Your task to perform on an android device: change your default location settings in chrome Image 0: 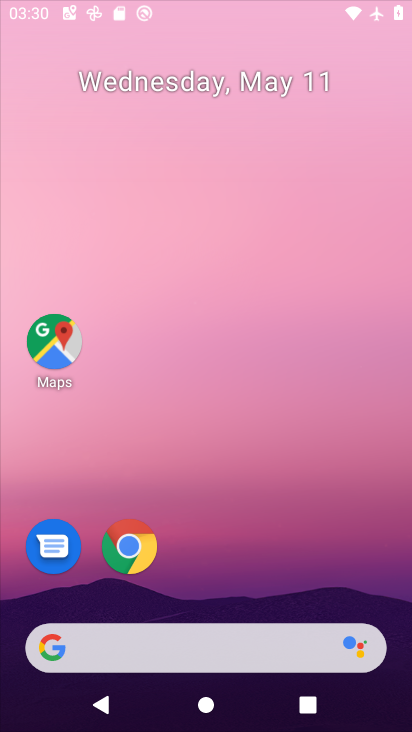
Step 0: click (237, 167)
Your task to perform on an android device: change your default location settings in chrome Image 1: 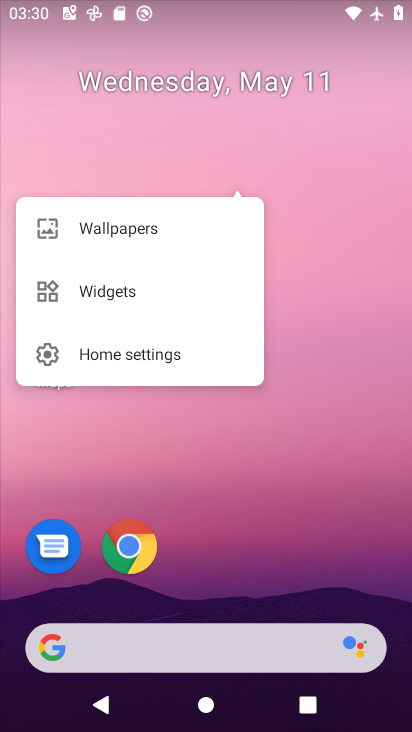
Step 1: click (368, 293)
Your task to perform on an android device: change your default location settings in chrome Image 2: 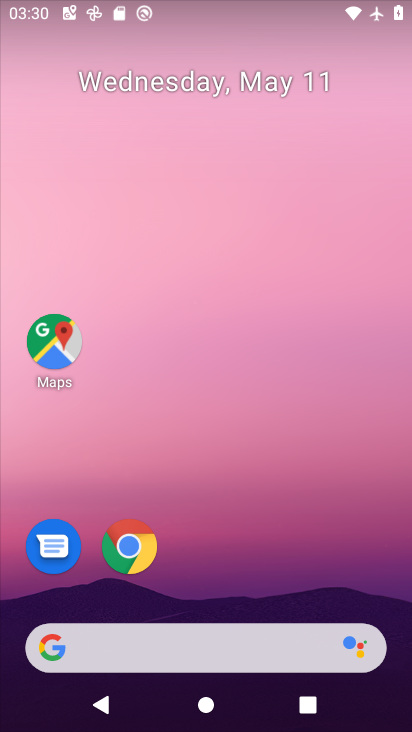
Step 2: drag from (181, 603) to (215, 144)
Your task to perform on an android device: change your default location settings in chrome Image 3: 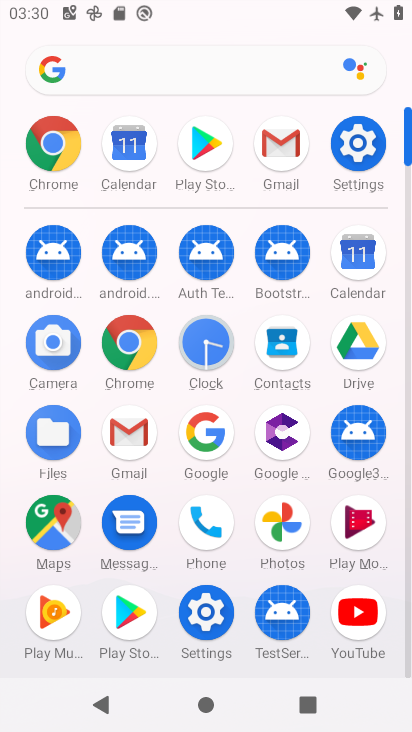
Step 3: click (127, 335)
Your task to perform on an android device: change your default location settings in chrome Image 4: 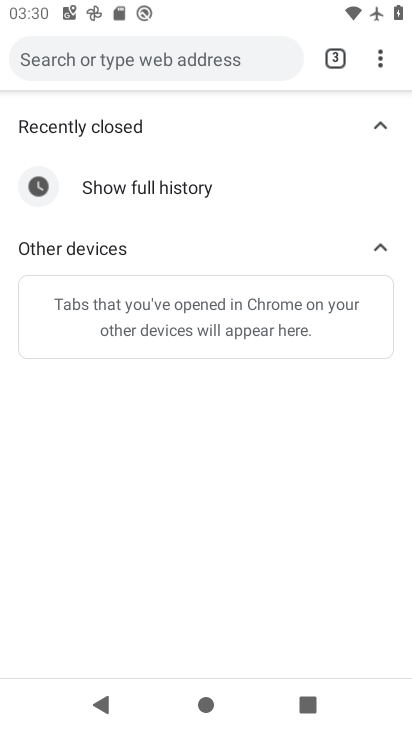
Step 4: click (382, 55)
Your task to perform on an android device: change your default location settings in chrome Image 5: 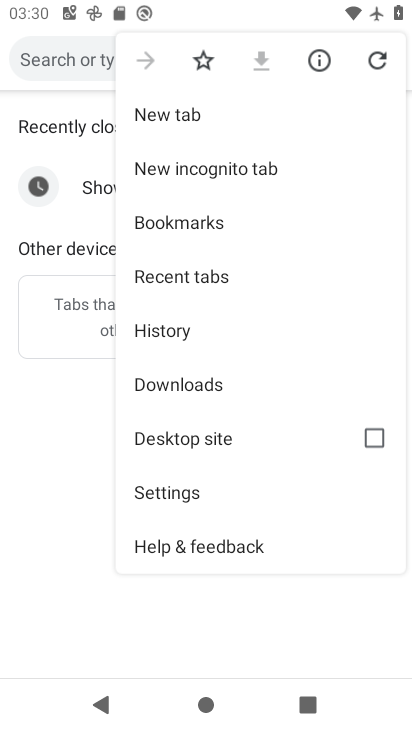
Step 5: click (186, 490)
Your task to perform on an android device: change your default location settings in chrome Image 6: 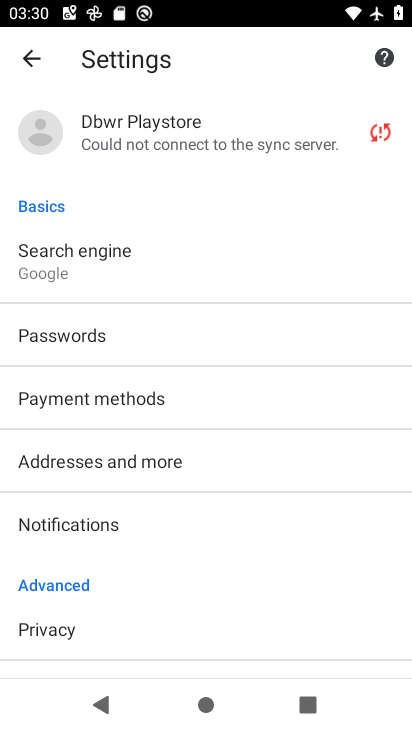
Step 6: drag from (185, 528) to (252, 209)
Your task to perform on an android device: change your default location settings in chrome Image 7: 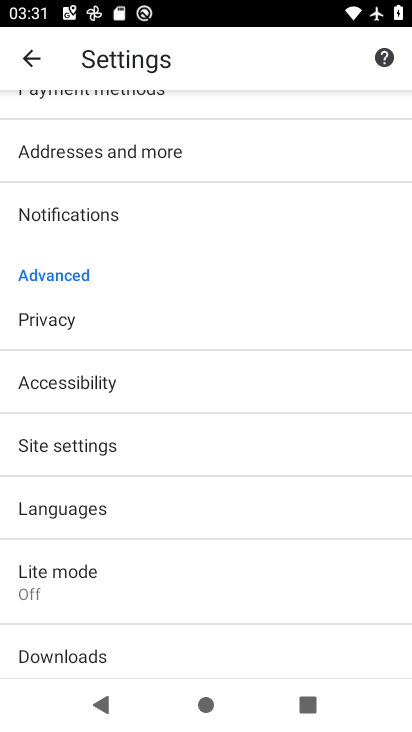
Step 7: drag from (186, 638) to (274, 229)
Your task to perform on an android device: change your default location settings in chrome Image 8: 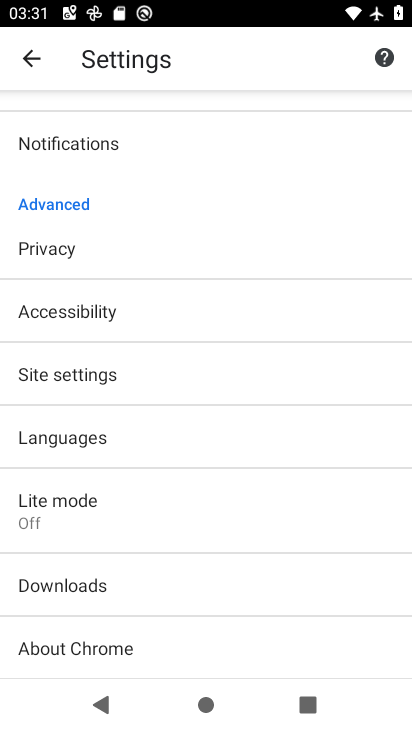
Step 8: click (141, 380)
Your task to perform on an android device: change your default location settings in chrome Image 9: 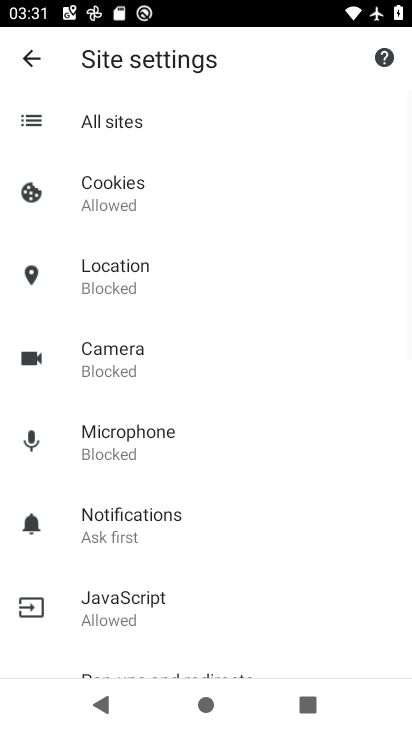
Step 9: click (176, 269)
Your task to perform on an android device: change your default location settings in chrome Image 10: 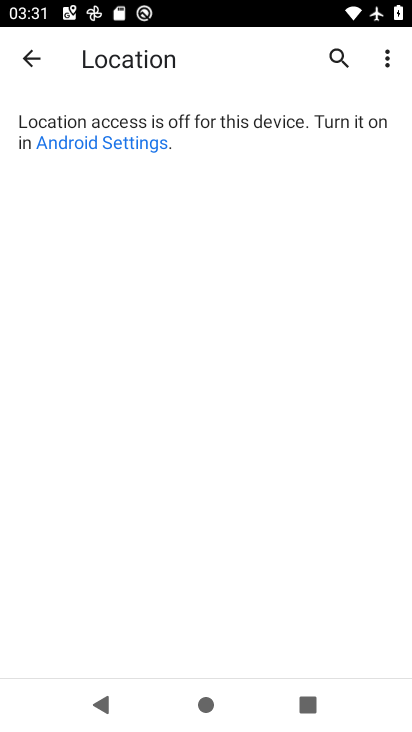
Step 10: click (222, 198)
Your task to perform on an android device: change your default location settings in chrome Image 11: 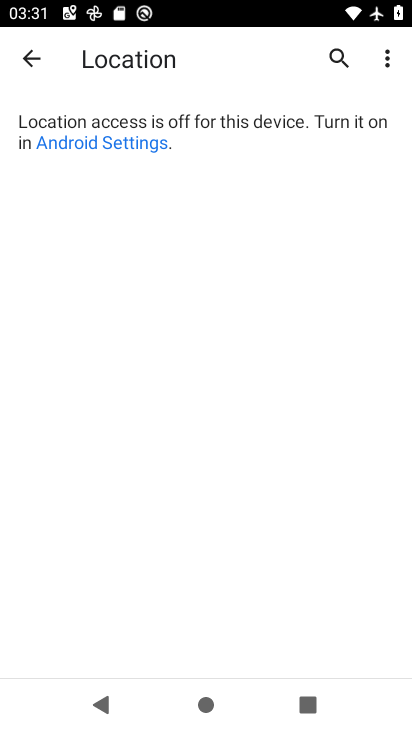
Step 11: drag from (232, 211) to (239, 443)
Your task to perform on an android device: change your default location settings in chrome Image 12: 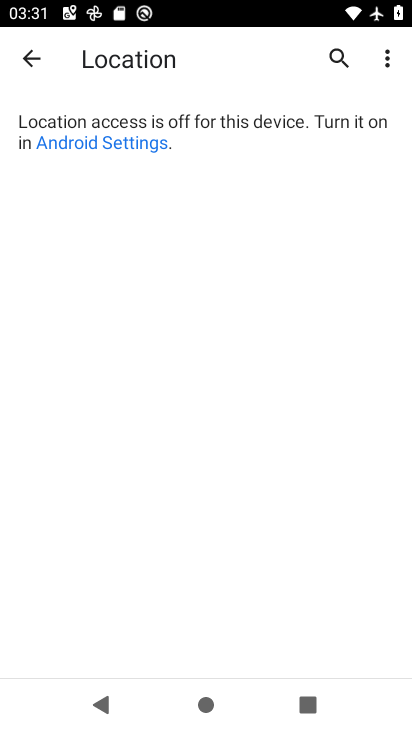
Step 12: click (239, 443)
Your task to perform on an android device: change your default location settings in chrome Image 13: 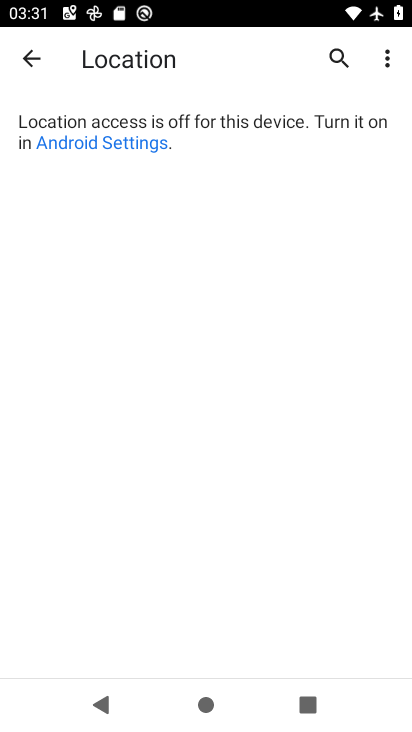
Step 13: click (235, 405)
Your task to perform on an android device: change your default location settings in chrome Image 14: 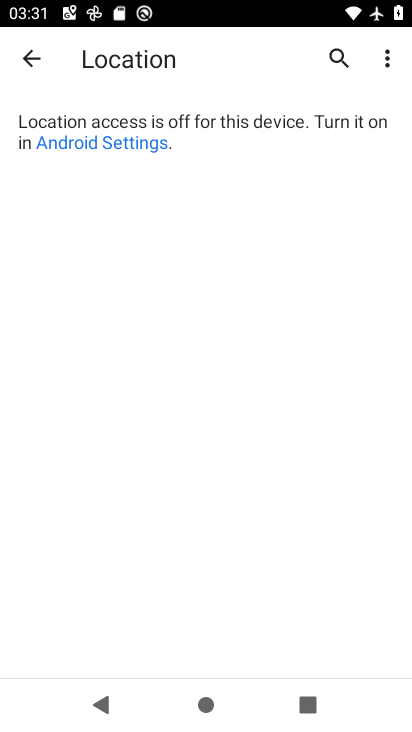
Step 14: click (235, 405)
Your task to perform on an android device: change your default location settings in chrome Image 15: 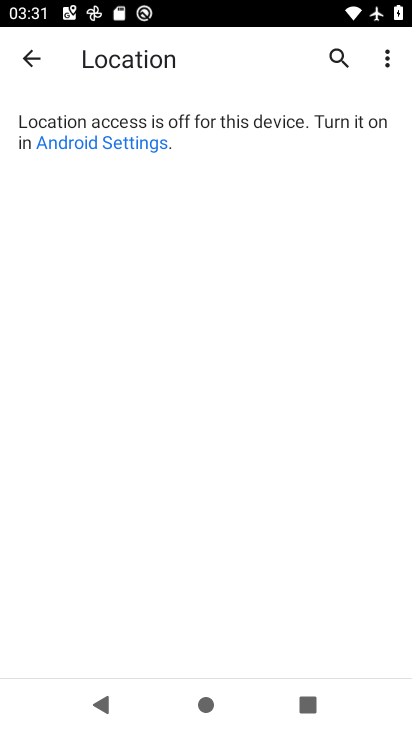
Step 15: click (234, 403)
Your task to perform on an android device: change your default location settings in chrome Image 16: 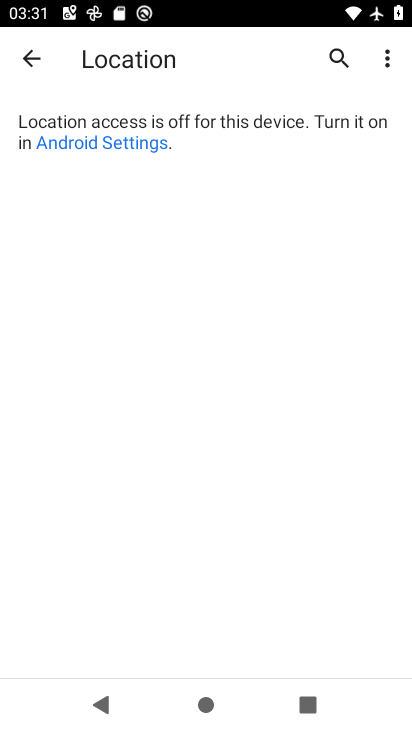
Step 16: task complete